Your task to perform on an android device: delete location history Image 0: 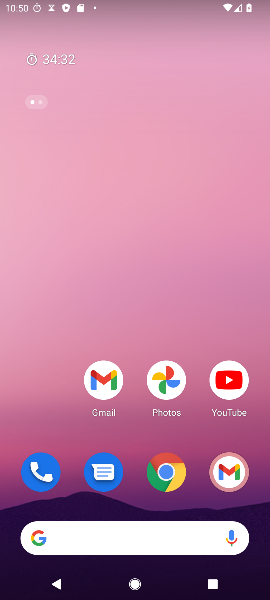
Step 0: drag from (193, 333) to (29, 3)
Your task to perform on an android device: delete location history Image 1: 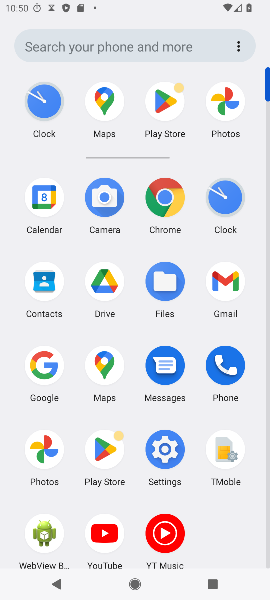
Step 1: click (107, 105)
Your task to perform on an android device: delete location history Image 2: 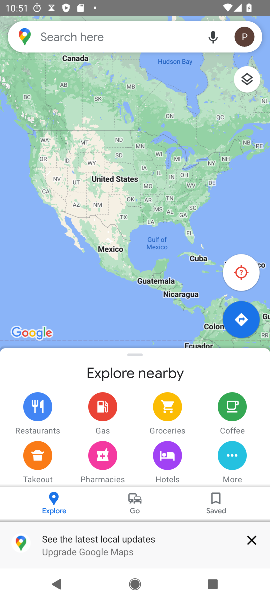
Step 2: click (246, 39)
Your task to perform on an android device: delete location history Image 3: 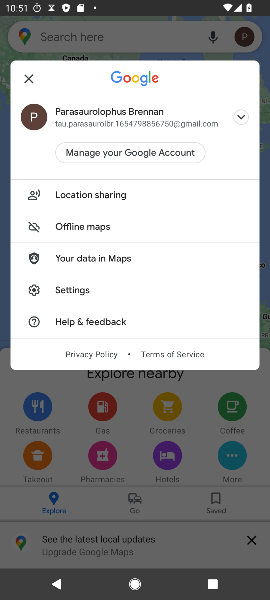
Step 3: click (102, 287)
Your task to perform on an android device: delete location history Image 4: 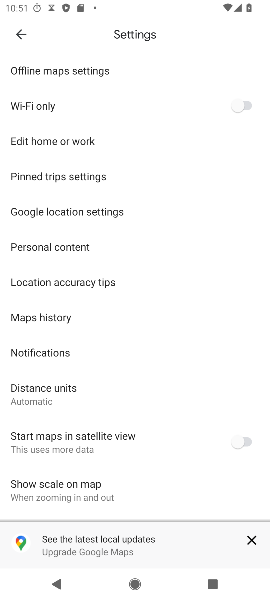
Step 4: task complete